Your task to perform on an android device: turn on the 12-hour format for clock Image 0: 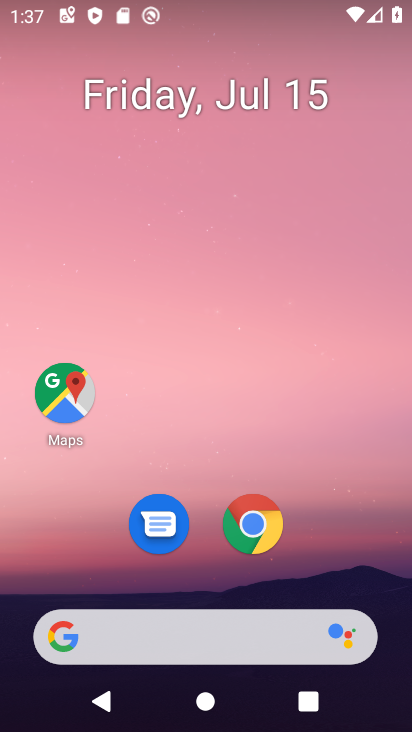
Step 0: drag from (165, 626) to (297, 119)
Your task to perform on an android device: turn on the 12-hour format for clock Image 1: 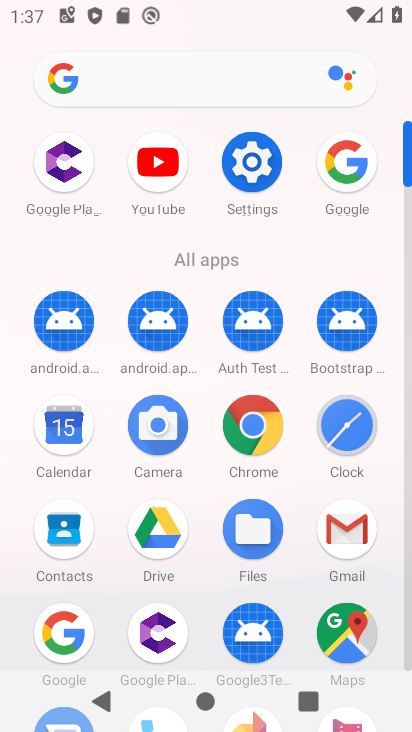
Step 1: click (349, 426)
Your task to perform on an android device: turn on the 12-hour format for clock Image 2: 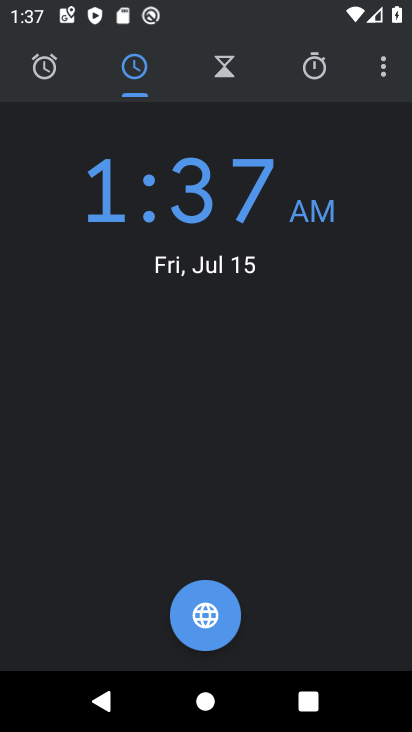
Step 2: click (386, 67)
Your task to perform on an android device: turn on the 12-hour format for clock Image 3: 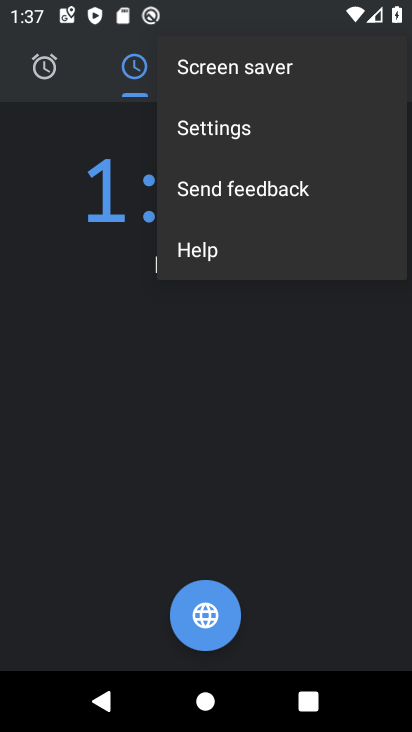
Step 3: click (249, 131)
Your task to perform on an android device: turn on the 12-hour format for clock Image 4: 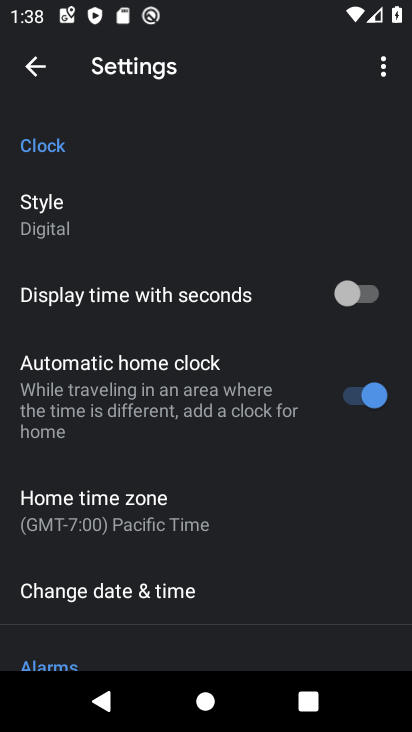
Step 4: drag from (237, 574) to (325, 193)
Your task to perform on an android device: turn on the 12-hour format for clock Image 5: 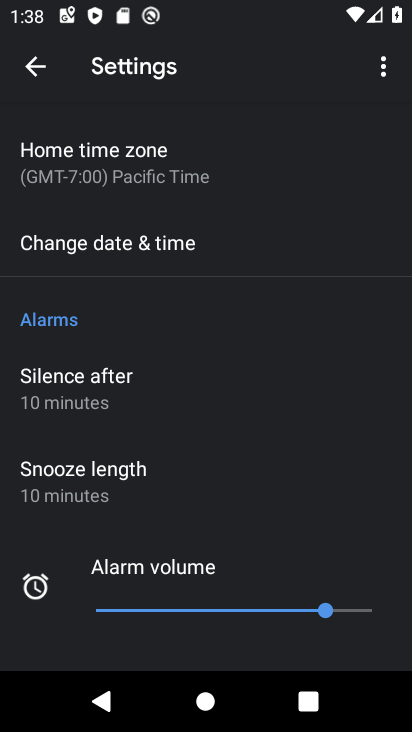
Step 5: click (177, 247)
Your task to perform on an android device: turn on the 12-hour format for clock Image 6: 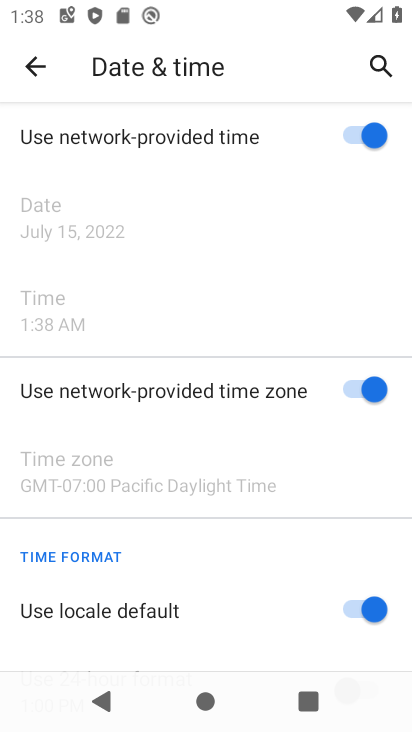
Step 6: task complete